Your task to perform on an android device: Open Google Chrome Image 0: 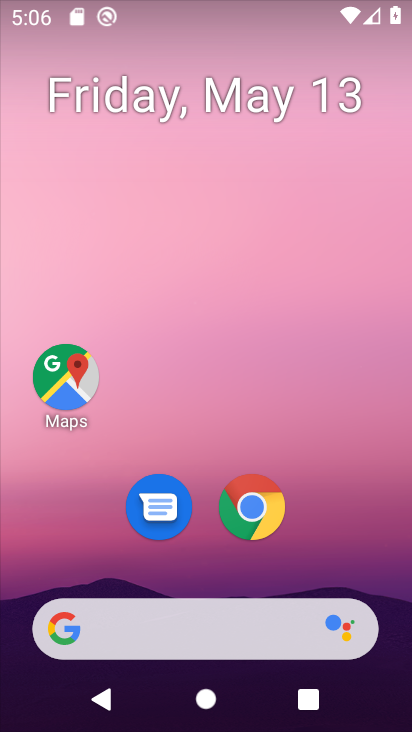
Step 0: click (257, 521)
Your task to perform on an android device: Open Google Chrome Image 1: 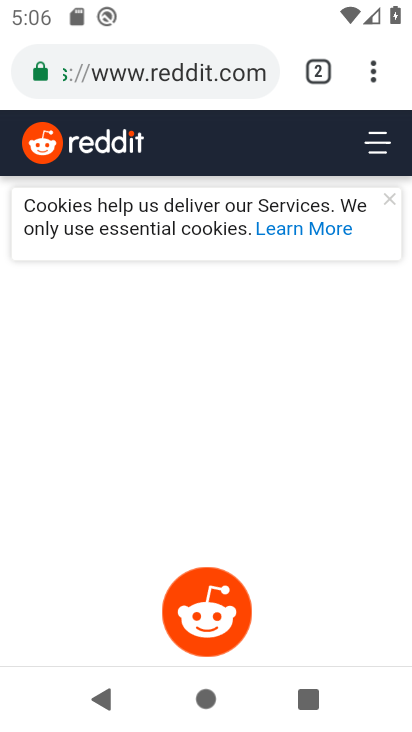
Step 1: task complete